Your task to perform on an android device: delete a single message in the gmail app Image 0: 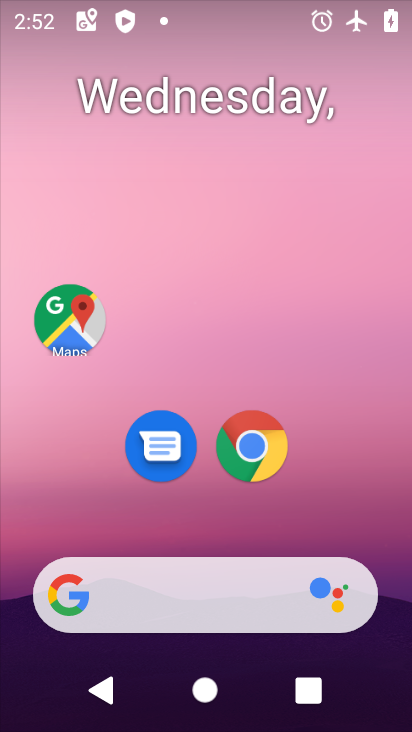
Step 0: drag from (213, 527) to (230, 233)
Your task to perform on an android device: delete a single message in the gmail app Image 1: 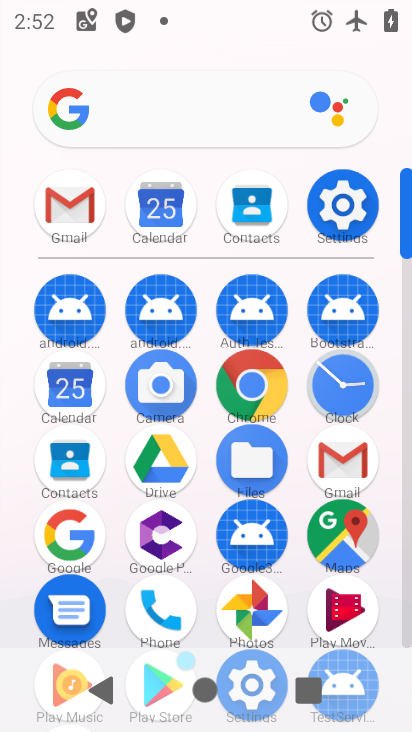
Step 1: click (69, 220)
Your task to perform on an android device: delete a single message in the gmail app Image 2: 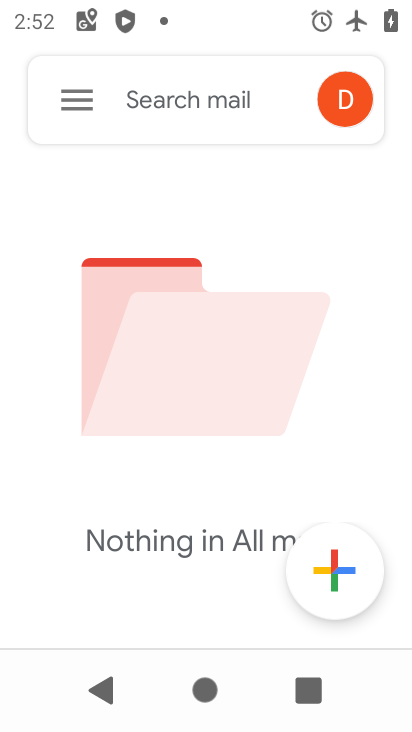
Step 2: click (73, 107)
Your task to perform on an android device: delete a single message in the gmail app Image 3: 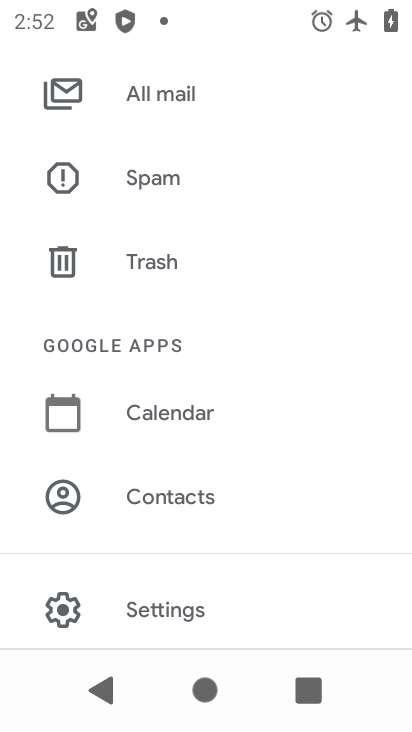
Step 3: click (214, 105)
Your task to perform on an android device: delete a single message in the gmail app Image 4: 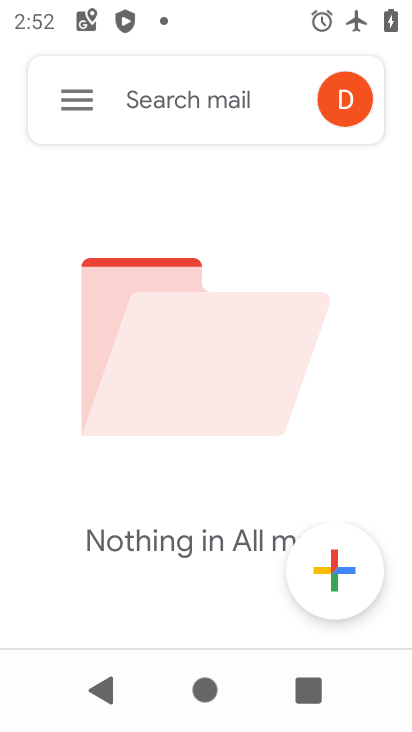
Step 4: task complete